Your task to perform on an android device: Go to Yahoo.com Image 0: 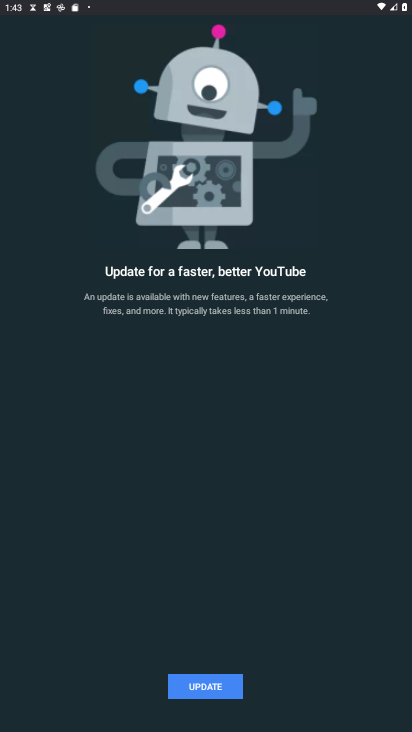
Step 0: press back button
Your task to perform on an android device: Go to Yahoo.com Image 1: 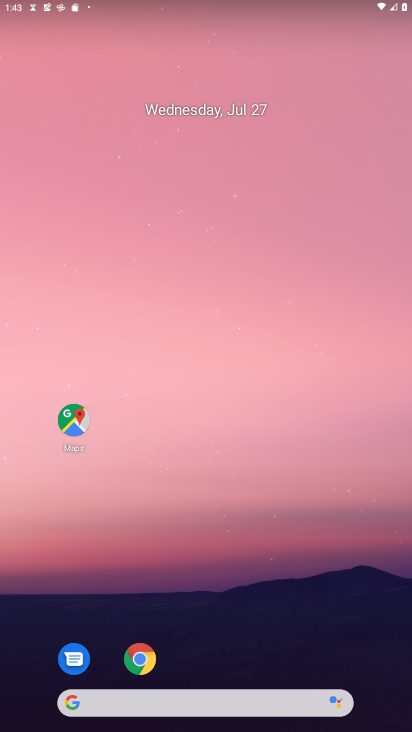
Step 1: click (131, 658)
Your task to perform on an android device: Go to Yahoo.com Image 2: 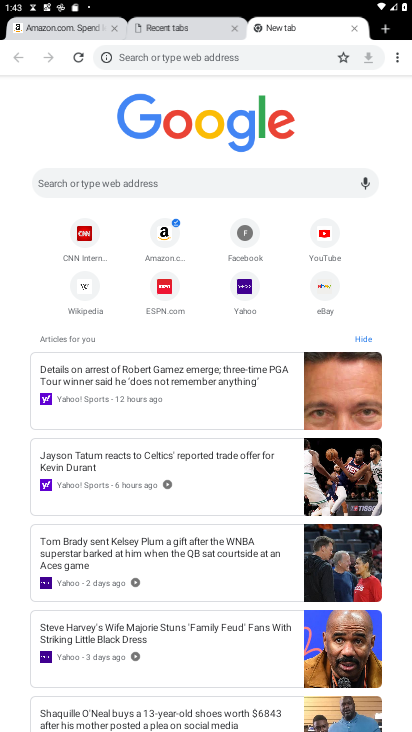
Step 2: click (251, 286)
Your task to perform on an android device: Go to Yahoo.com Image 3: 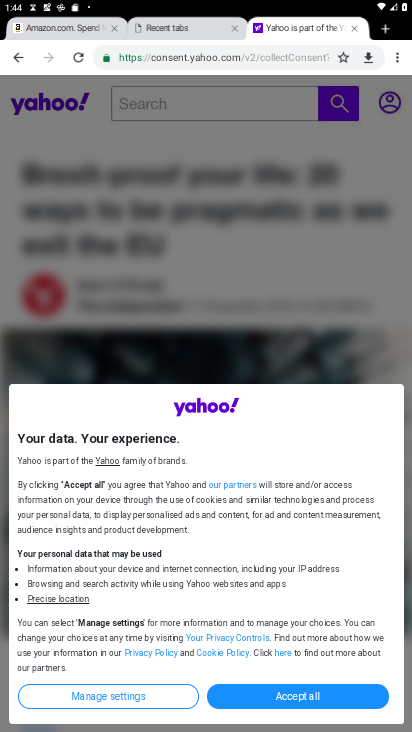
Step 3: task complete